Your task to perform on an android device: Open Wikipedia Image 0: 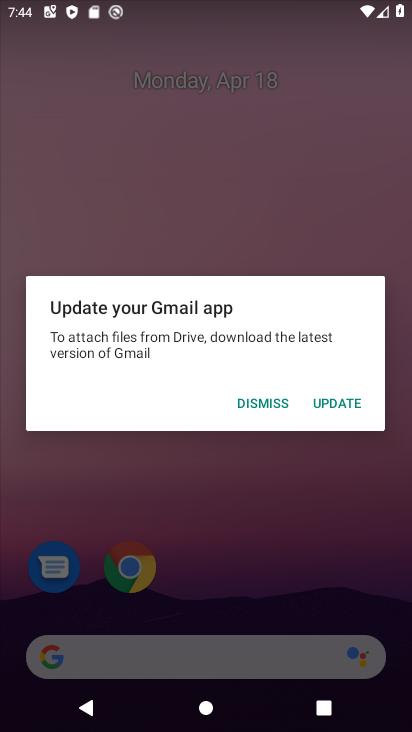
Step 0: press home button
Your task to perform on an android device: Open Wikipedia Image 1: 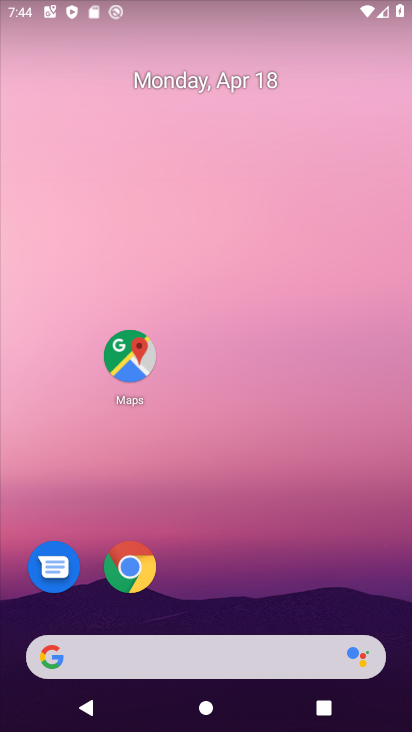
Step 1: click (133, 574)
Your task to perform on an android device: Open Wikipedia Image 2: 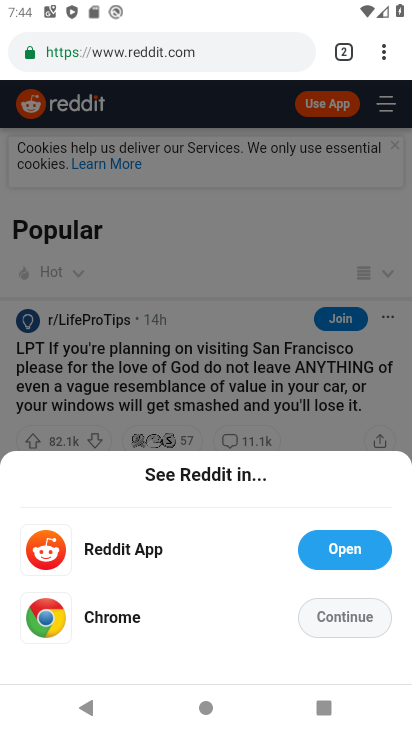
Step 2: click (211, 367)
Your task to perform on an android device: Open Wikipedia Image 3: 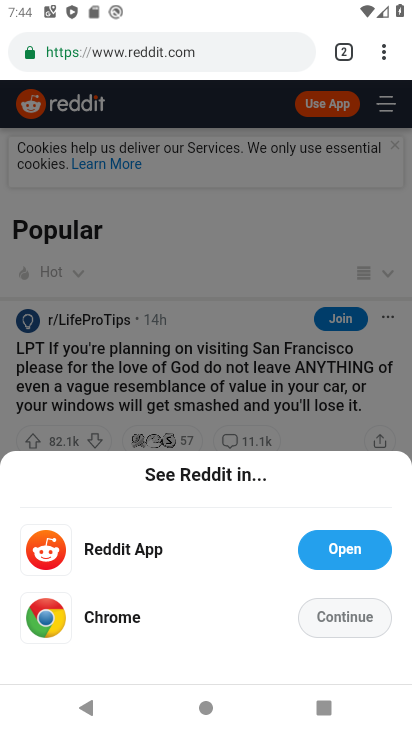
Step 3: click (337, 608)
Your task to perform on an android device: Open Wikipedia Image 4: 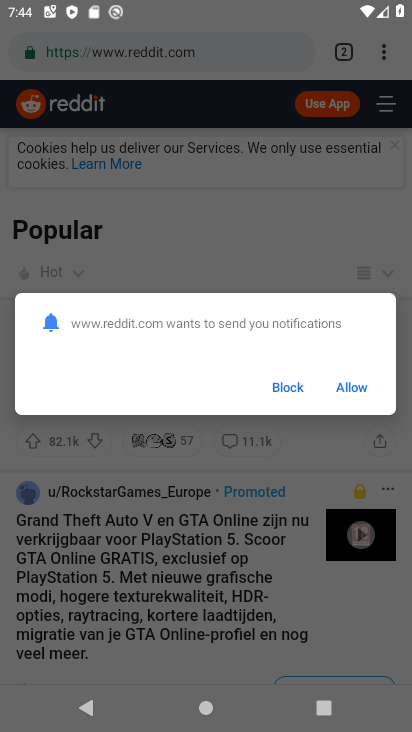
Step 4: click (283, 391)
Your task to perform on an android device: Open Wikipedia Image 5: 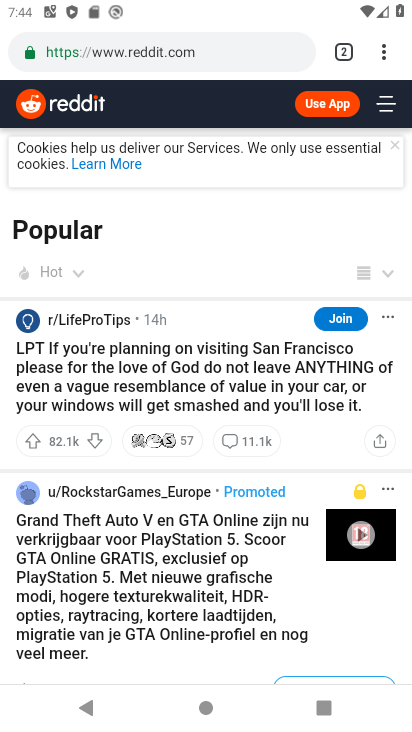
Step 5: click (180, 64)
Your task to perform on an android device: Open Wikipedia Image 6: 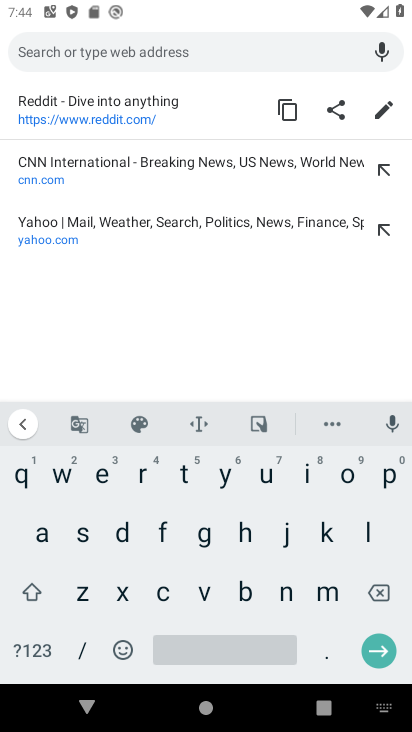
Step 6: click (57, 478)
Your task to perform on an android device: Open Wikipedia Image 7: 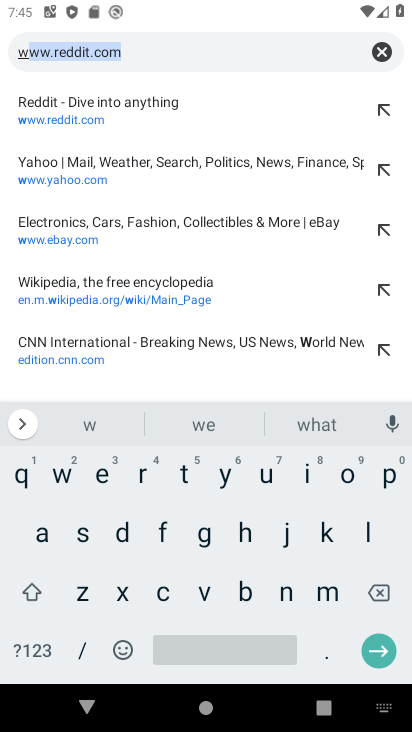
Step 7: click (301, 471)
Your task to perform on an android device: Open Wikipedia Image 8: 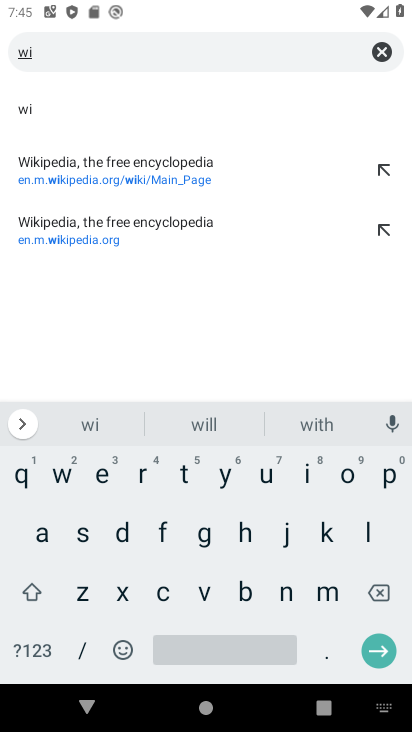
Step 8: click (334, 530)
Your task to perform on an android device: Open Wikipedia Image 9: 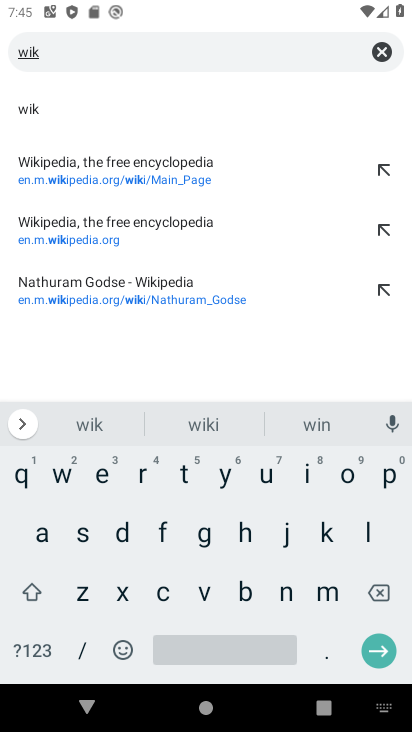
Step 9: click (315, 485)
Your task to perform on an android device: Open Wikipedia Image 10: 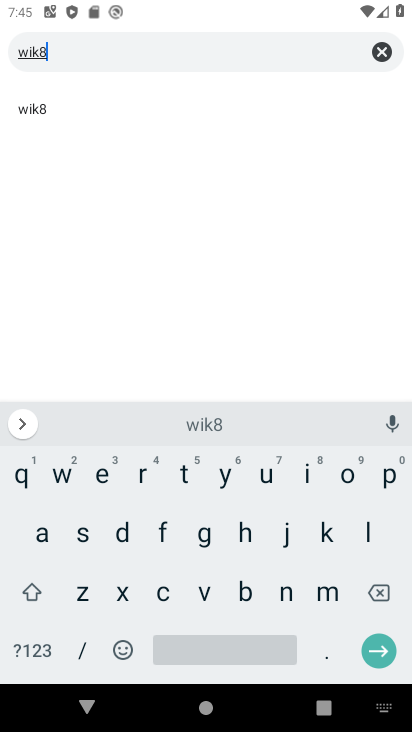
Step 10: click (383, 599)
Your task to perform on an android device: Open Wikipedia Image 11: 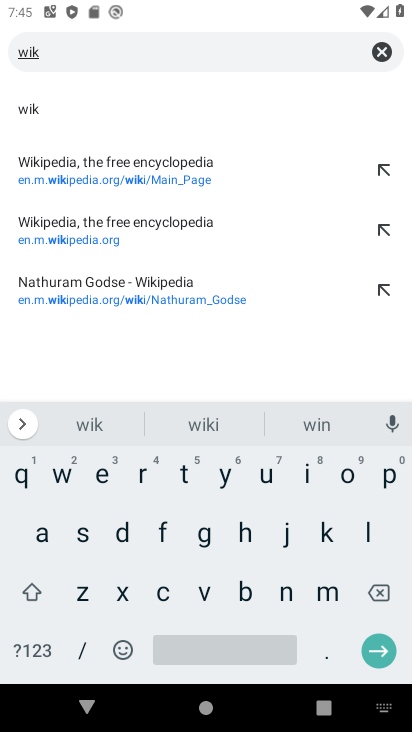
Step 11: click (307, 475)
Your task to perform on an android device: Open Wikipedia Image 12: 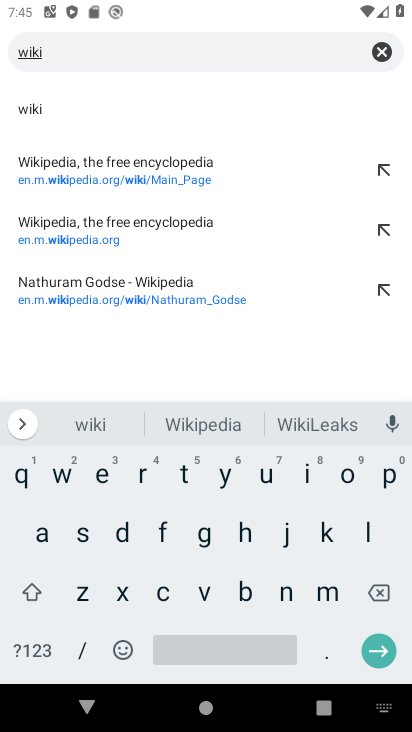
Step 12: click (234, 423)
Your task to perform on an android device: Open Wikipedia Image 13: 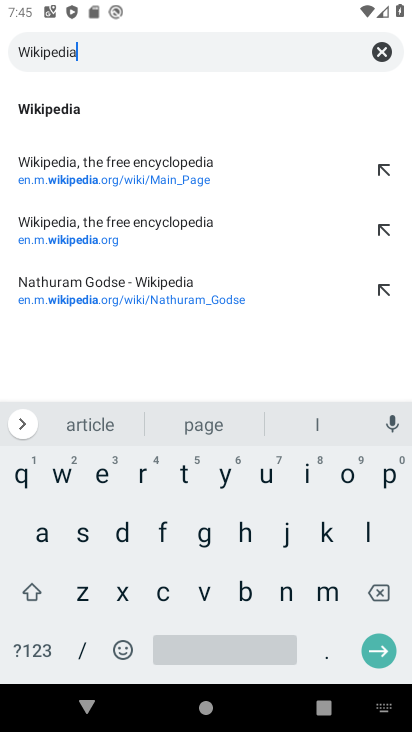
Step 13: click (374, 660)
Your task to perform on an android device: Open Wikipedia Image 14: 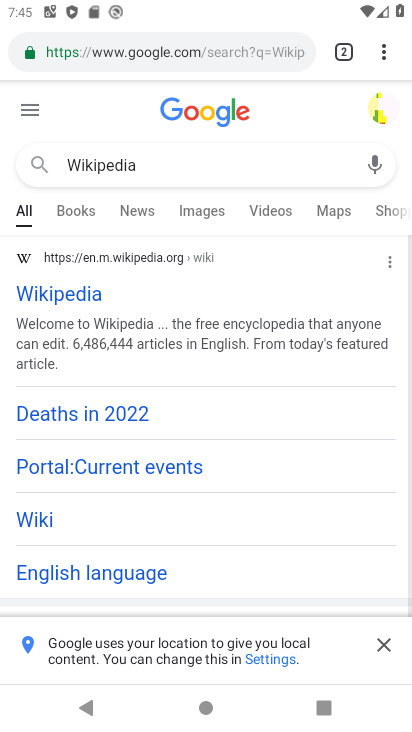
Step 14: click (73, 291)
Your task to perform on an android device: Open Wikipedia Image 15: 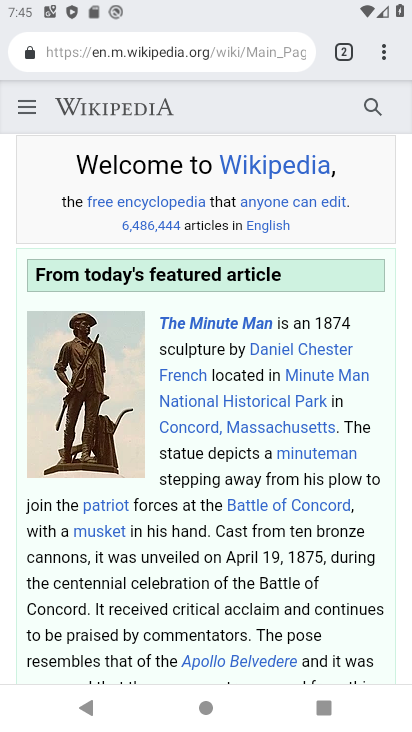
Step 15: task complete